Your task to perform on an android device: turn on sleep mode Image 0: 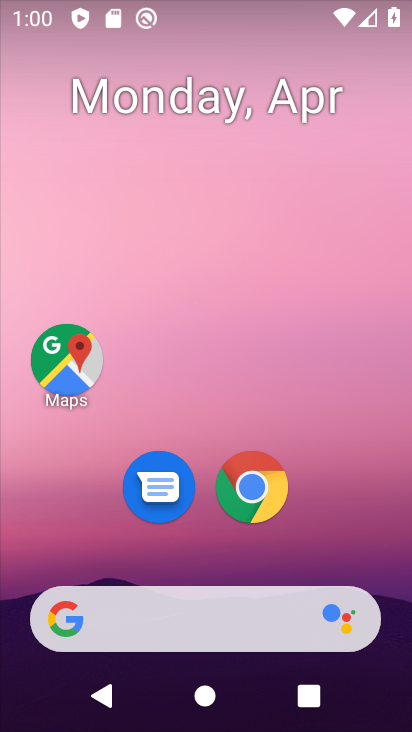
Step 0: drag from (392, 621) to (271, 184)
Your task to perform on an android device: turn on sleep mode Image 1: 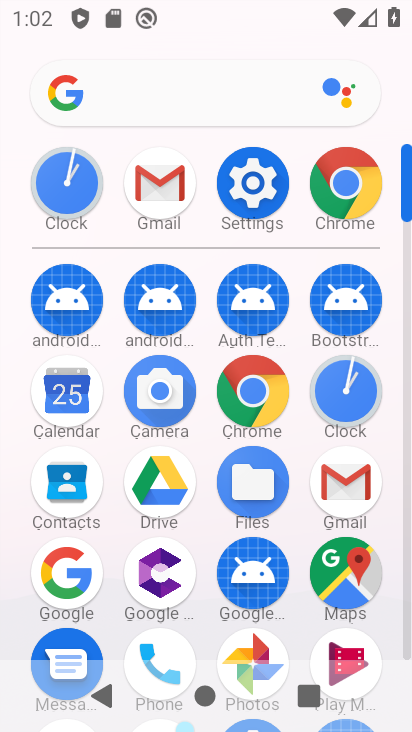
Step 1: click (256, 182)
Your task to perform on an android device: turn on sleep mode Image 2: 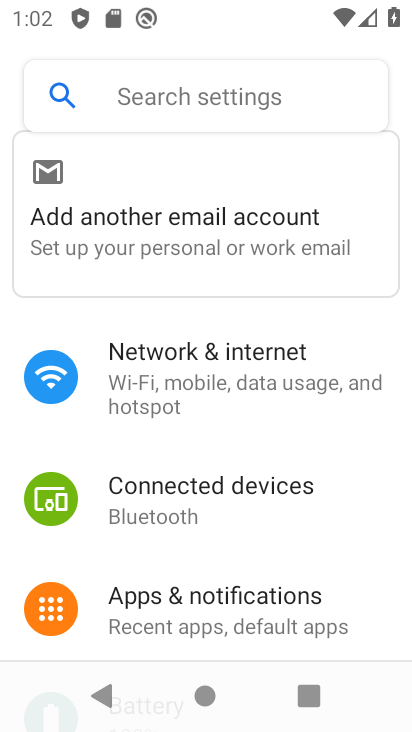
Step 2: task complete